Your task to perform on an android device: Show me popular games on the Play Store Image 0: 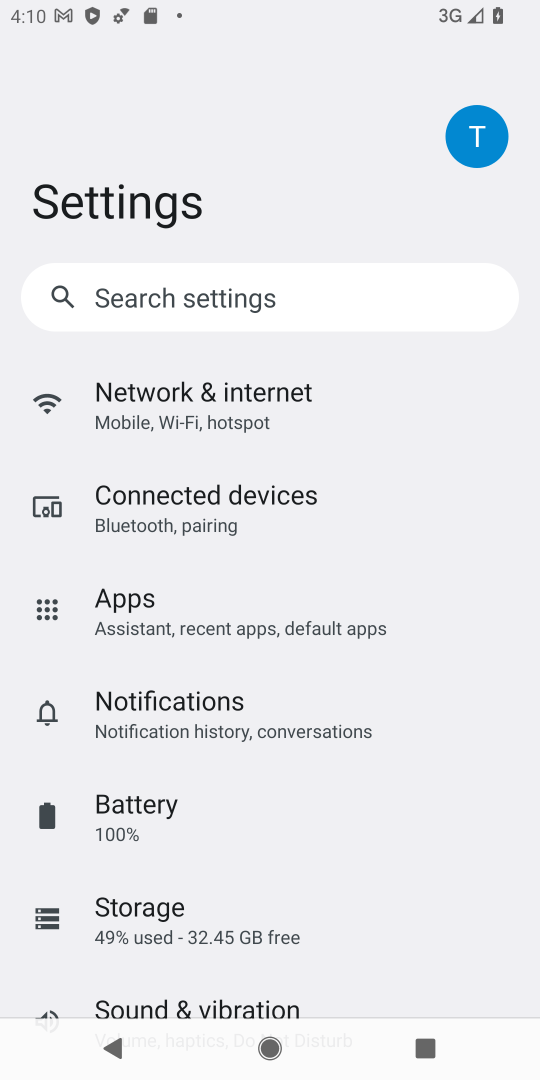
Step 0: press home button
Your task to perform on an android device: Show me popular games on the Play Store Image 1: 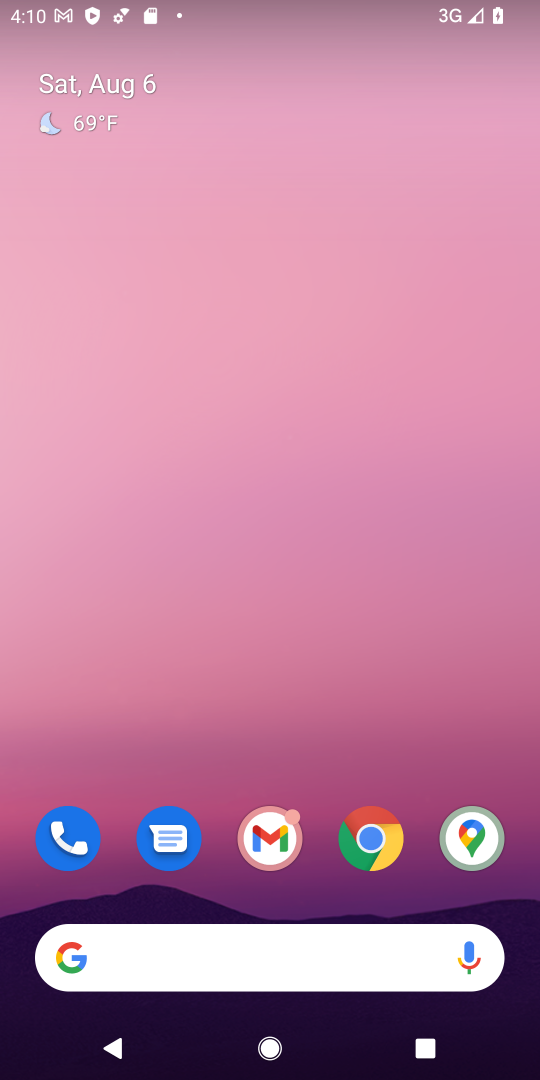
Step 1: drag from (32, 1079) to (366, 275)
Your task to perform on an android device: Show me popular games on the Play Store Image 2: 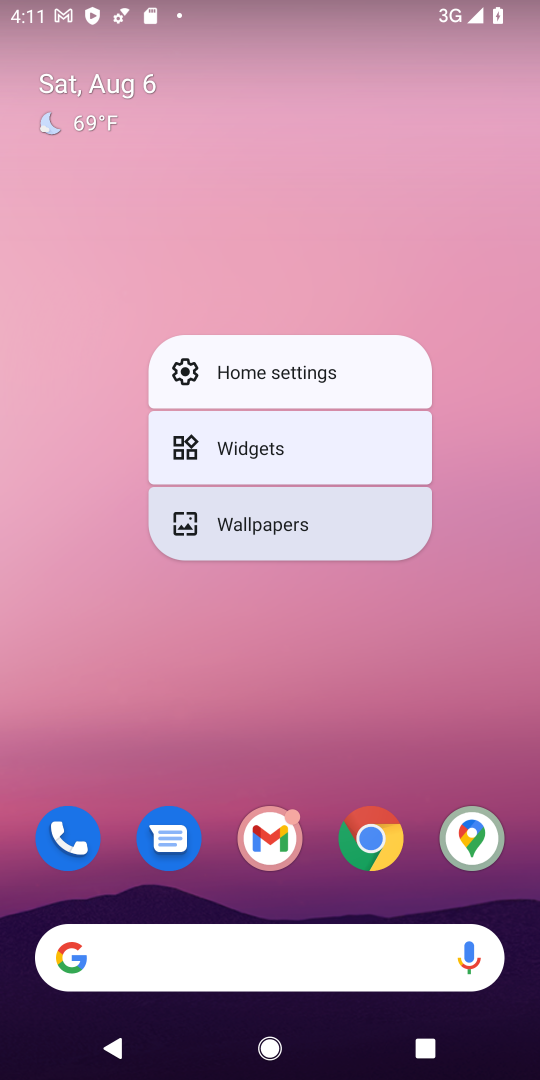
Step 2: drag from (38, 800) to (322, 75)
Your task to perform on an android device: Show me popular games on the Play Store Image 3: 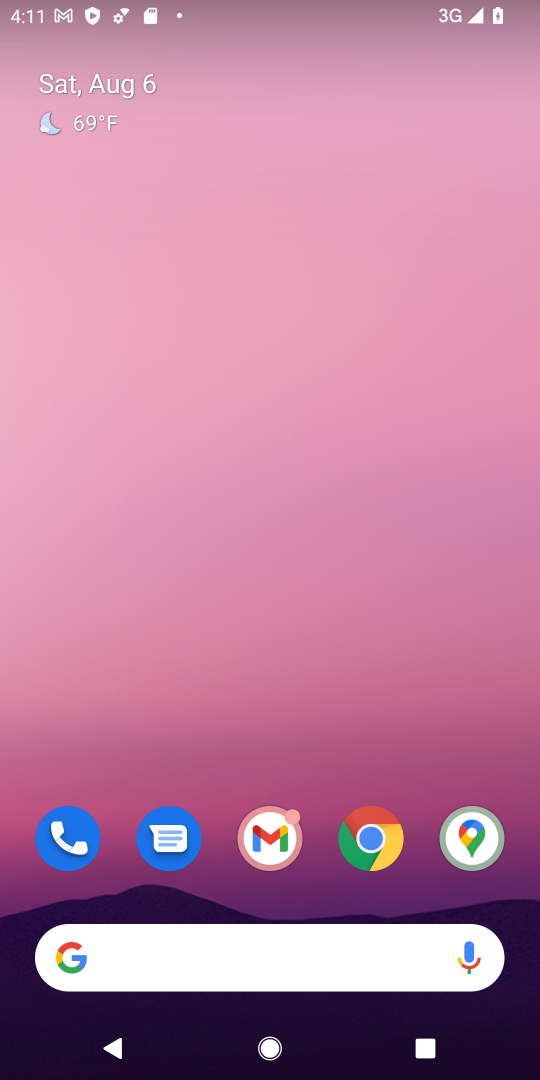
Step 3: drag from (19, 904) to (280, 124)
Your task to perform on an android device: Show me popular games on the Play Store Image 4: 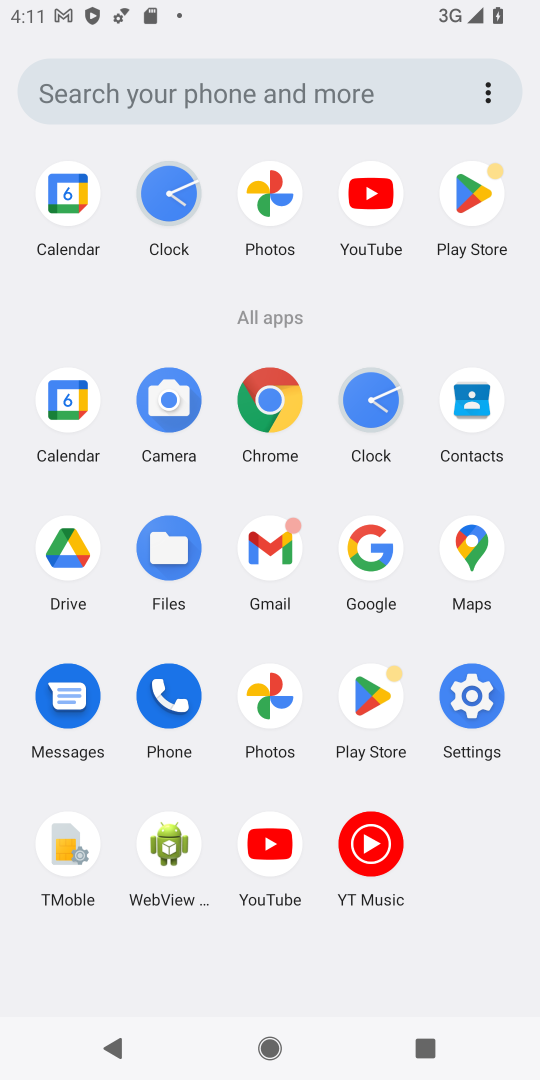
Step 4: click (373, 692)
Your task to perform on an android device: Show me popular games on the Play Store Image 5: 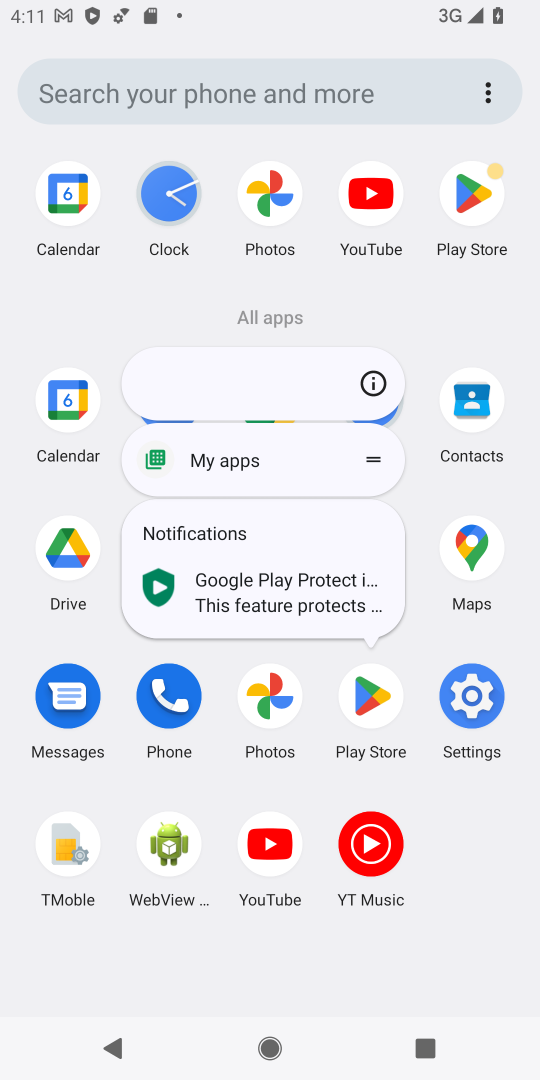
Step 5: click (371, 694)
Your task to perform on an android device: Show me popular games on the Play Store Image 6: 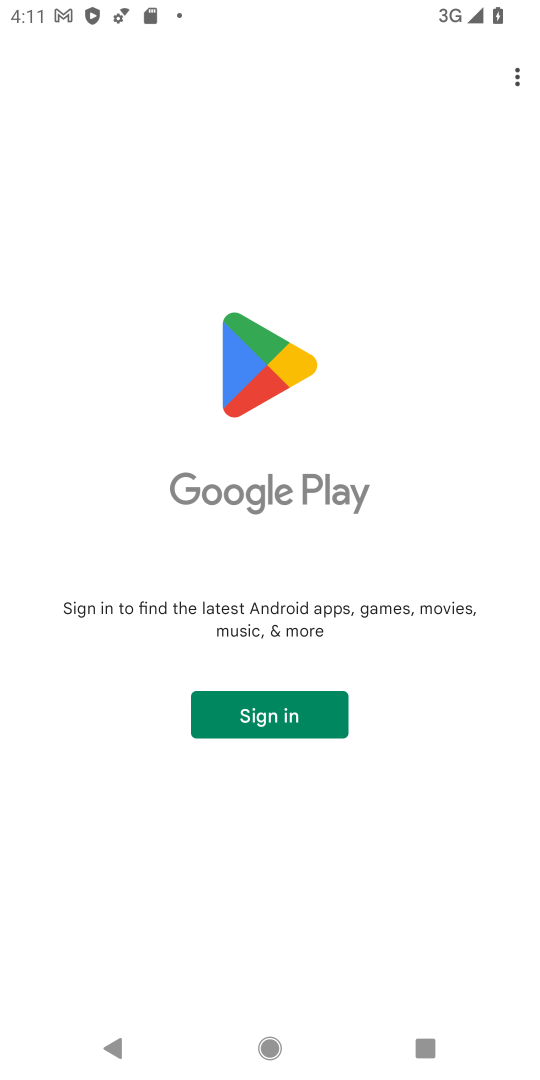
Step 6: task complete